Your task to perform on an android device: What is the speed of a skateboard? Image 0: 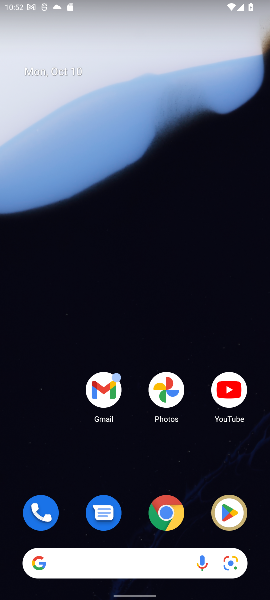
Step 0: click (141, 556)
Your task to perform on an android device: What is the speed of a skateboard? Image 1: 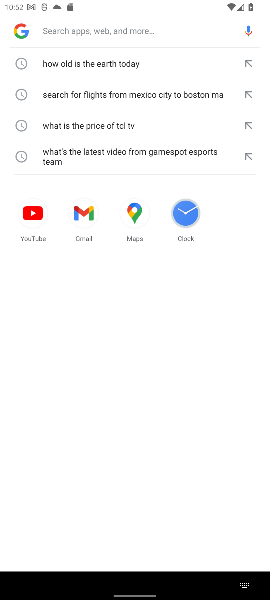
Step 1: type "the speed of a skateboard"
Your task to perform on an android device: What is the speed of a skateboard? Image 2: 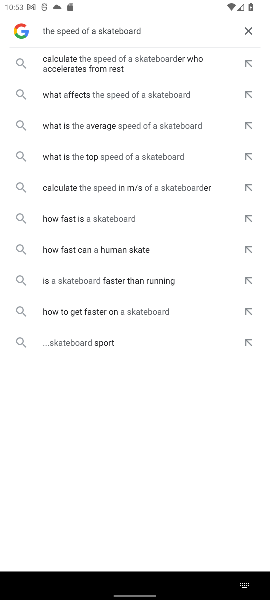
Step 2: click (116, 218)
Your task to perform on an android device: What is the speed of a skateboard? Image 3: 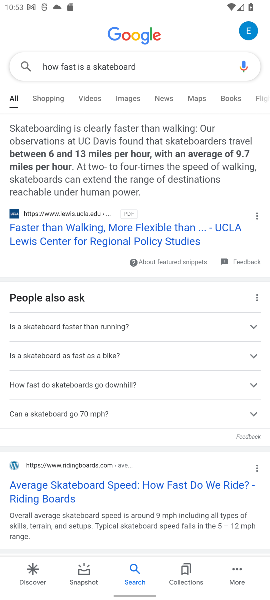
Step 3: task complete